Your task to perform on an android device: delete the emails in spam in the gmail app Image 0: 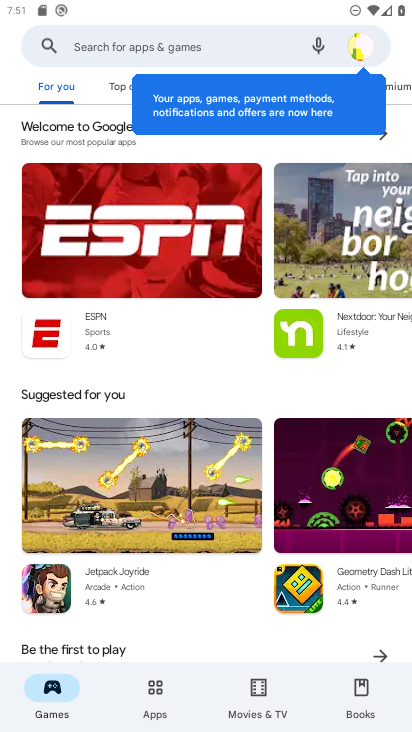
Step 0: press home button
Your task to perform on an android device: delete the emails in spam in the gmail app Image 1: 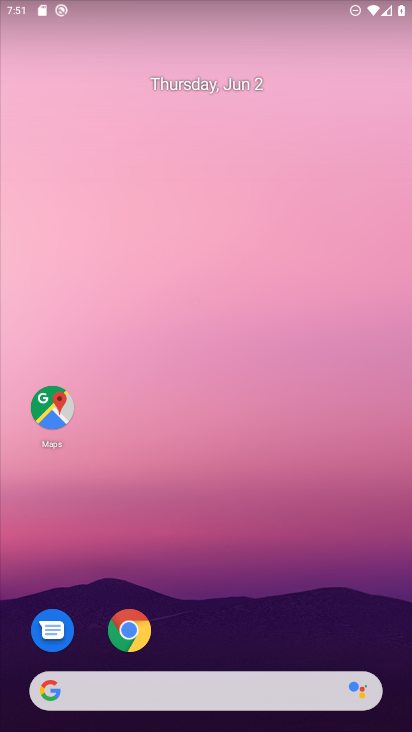
Step 1: drag from (128, 730) to (177, 44)
Your task to perform on an android device: delete the emails in spam in the gmail app Image 2: 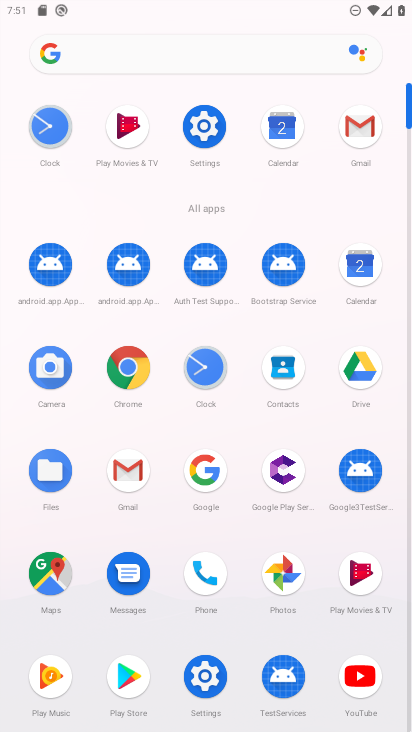
Step 2: click (116, 468)
Your task to perform on an android device: delete the emails in spam in the gmail app Image 3: 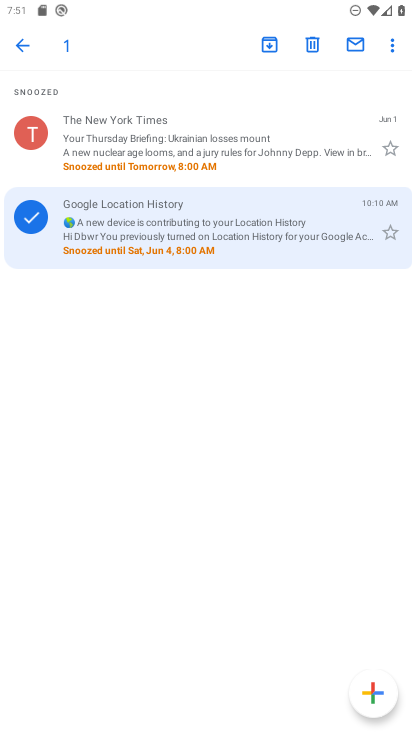
Step 3: click (22, 41)
Your task to perform on an android device: delete the emails in spam in the gmail app Image 4: 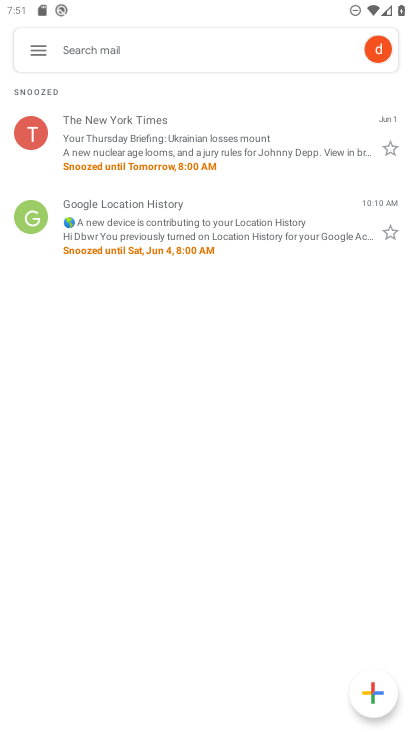
Step 4: click (38, 56)
Your task to perform on an android device: delete the emails in spam in the gmail app Image 5: 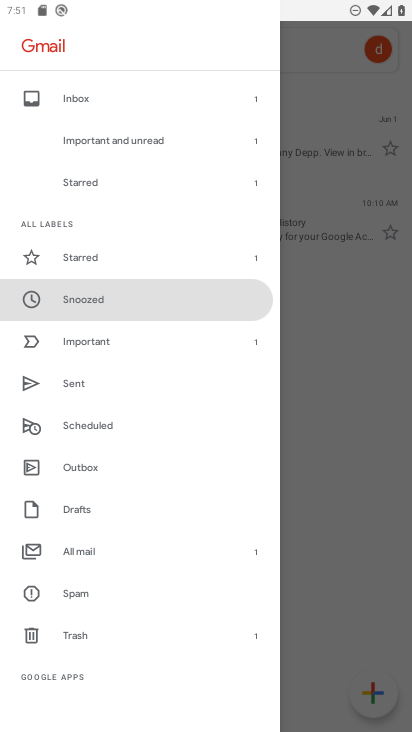
Step 5: click (82, 592)
Your task to perform on an android device: delete the emails in spam in the gmail app Image 6: 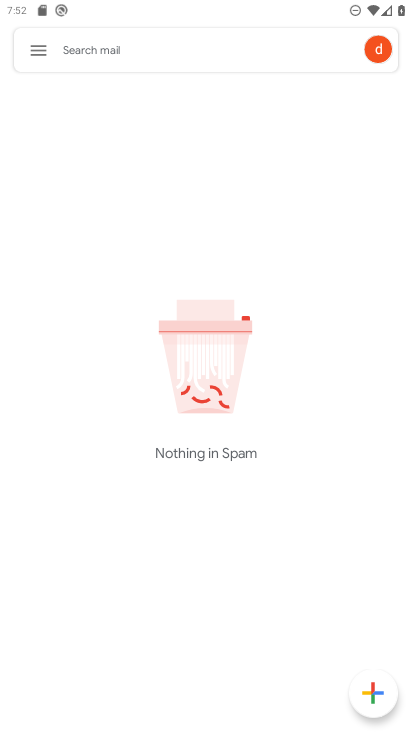
Step 6: task complete